Your task to perform on an android device: Show me the alarms in the clock app Image 0: 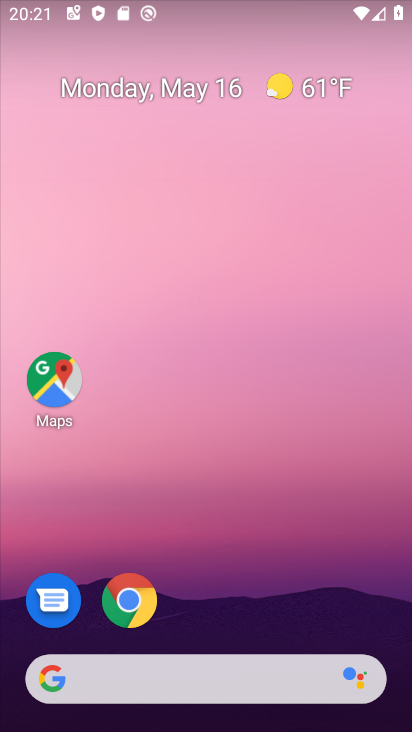
Step 0: drag from (187, 652) to (363, 156)
Your task to perform on an android device: Show me the alarms in the clock app Image 1: 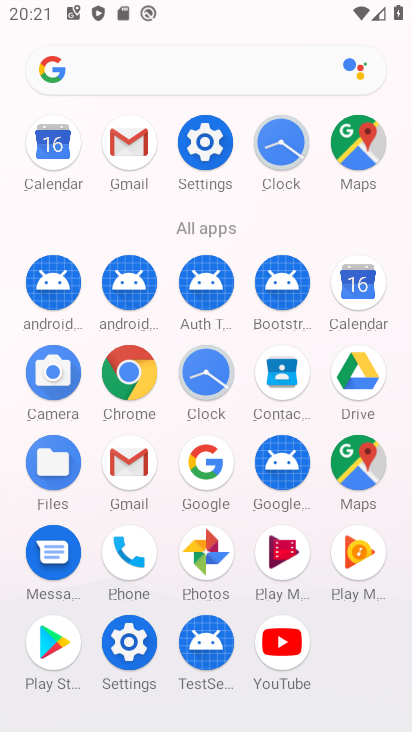
Step 1: click (199, 367)
Your task to perform on an android device: Show me the alarms in the clock app Image 2: 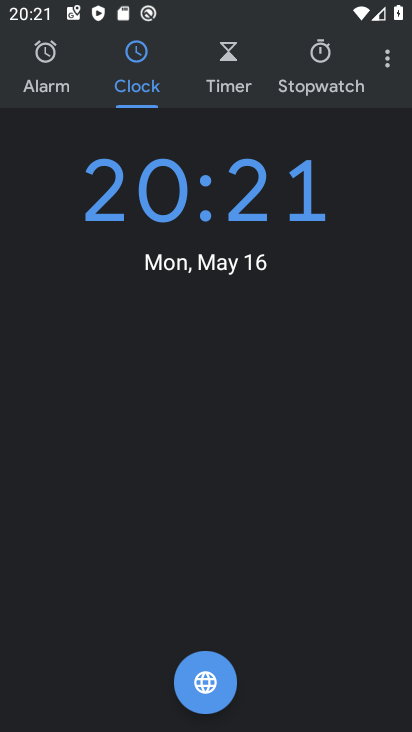
Step 2: click (94, 86)
Your task to perform on an android device: Show me the alarms in the clock app Image 3: 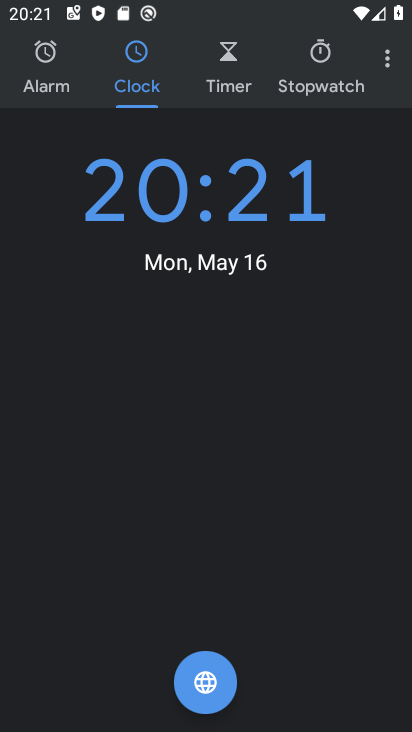
Step 3: click (69, 87)
Your task to perform on an android device: Show me the alarms in the clock app Image 4: 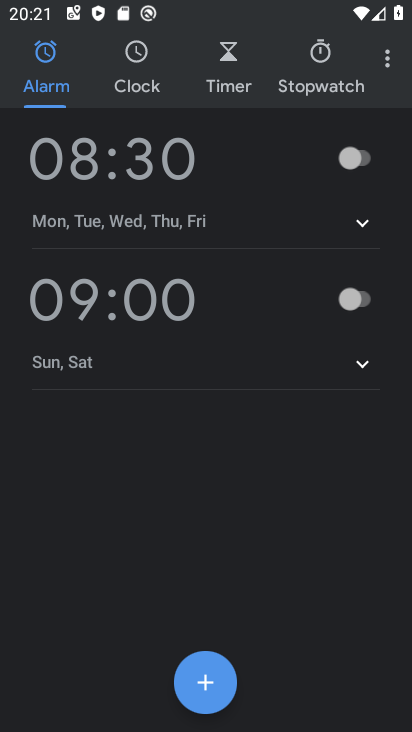
Step 4: task complete